Your task to perform on an android device: stop showing notifications on the lock screen Image 0: 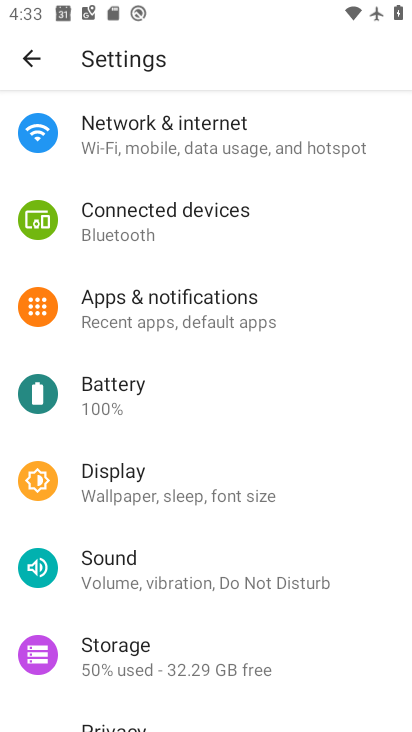
Step 0: press home button
Your task to perform on an android device: stop showing notifications on the lock screen Image 1: 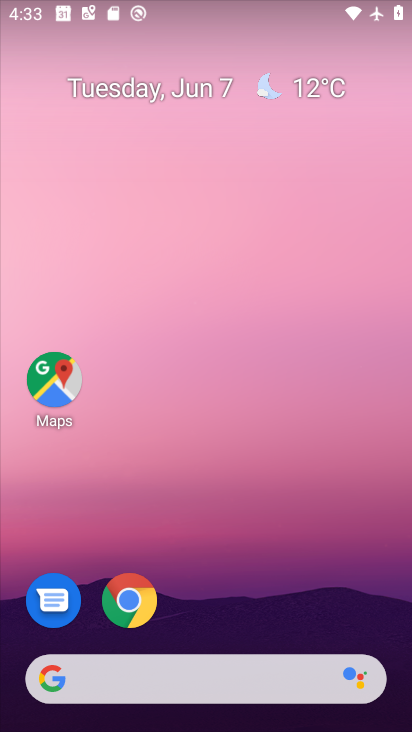
Step 1: drag from (274, 542) to (255, 109)
Your task to perform on an android device: stop showing notifications on the lock screen Image 2: 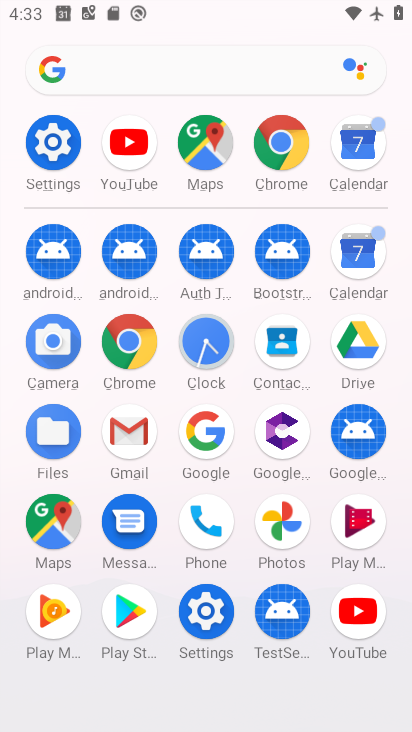
Step 2: click (56, 147)
Your task to perform on an android device: stop showing notifications on the lock screen Image 3: 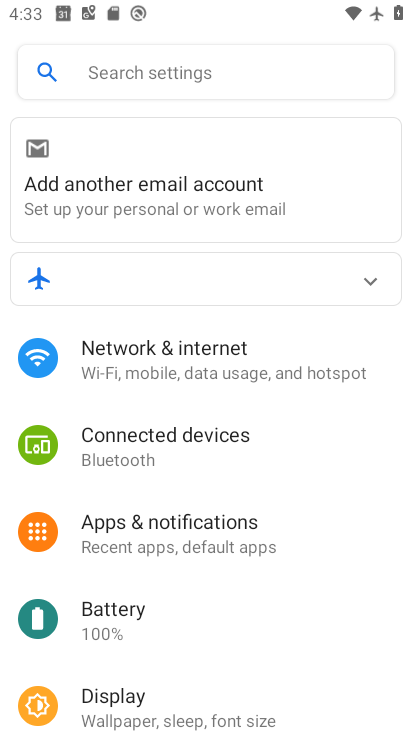
Step 3: click (240, 539)
Your task to perform on an android device: stop showing notifications on the lock screen Image 4: 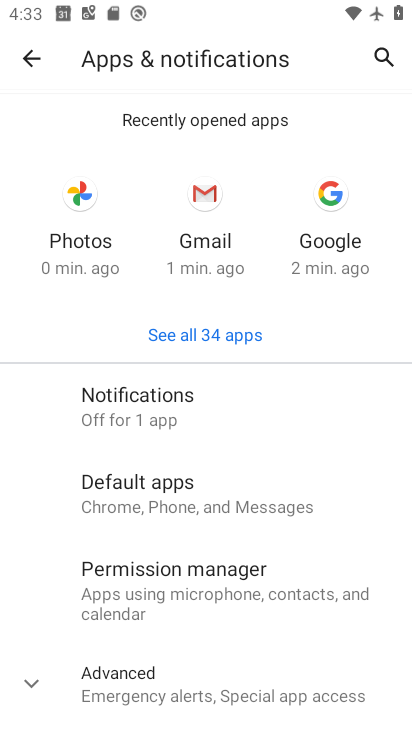
Step 4: click (182, 421)
Your task to perform on an android device: stop showing notifications on the lock screen Image 5: 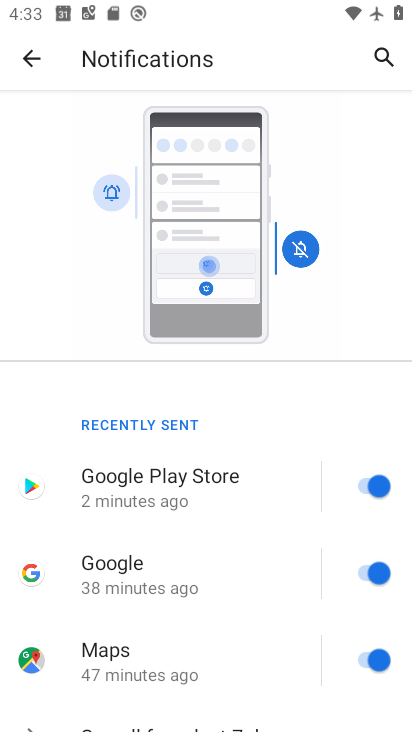
Step 5: drag from (258, 678) to (243, 268)
Your task to perform on an android device: stop showing notifications on the lock screen Image 6: 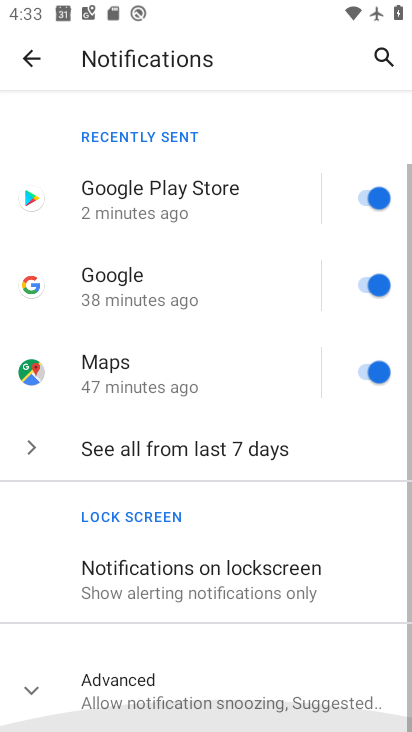
Step 6: click (243, 212)
Your task to perform on an android device: stop showing notifications on the lock screen Image 7: 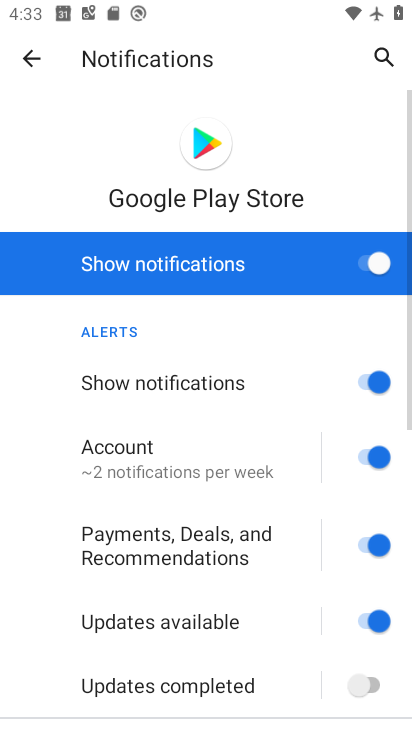
Step 7: click (31, 65)
Your task to perform on an android device: stop showing notifications on the lock screen Image 8: 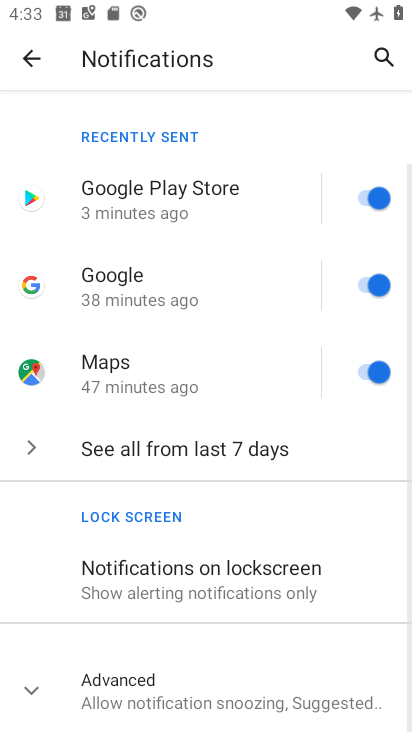
Step 8: click (177, 556)
Your task to perform on an android device: stop showing notifications on the lock screen Image 9: 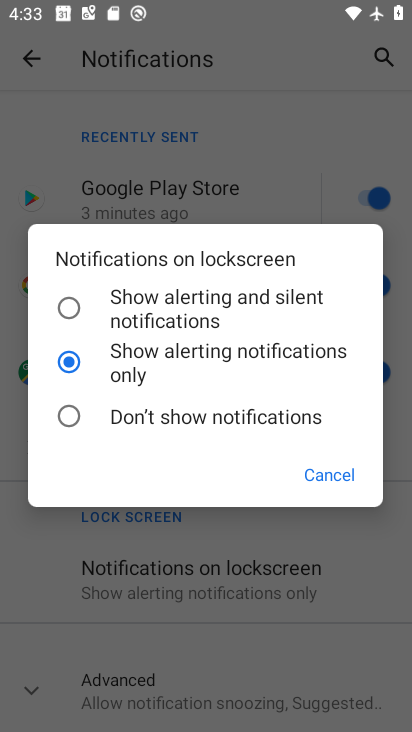
Step 9: click (171, 409)
Your task to perform on an android device: stop showing notifications on the lock screen Image 10: 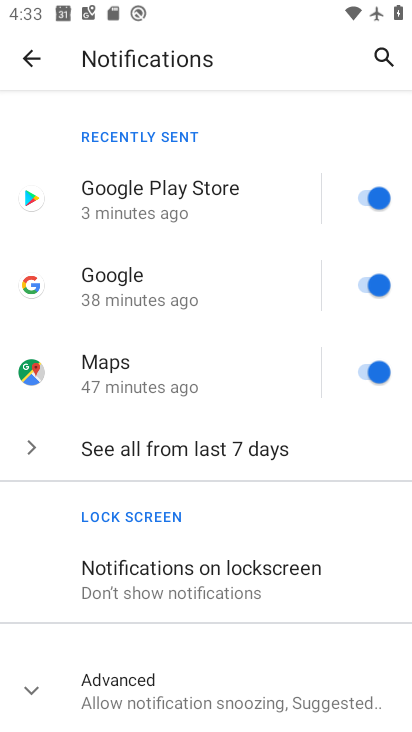
Step 10: task complete